Your task to perform on an android device: Open Google Chrome and click the shortcut for Amazon.com Image 0: 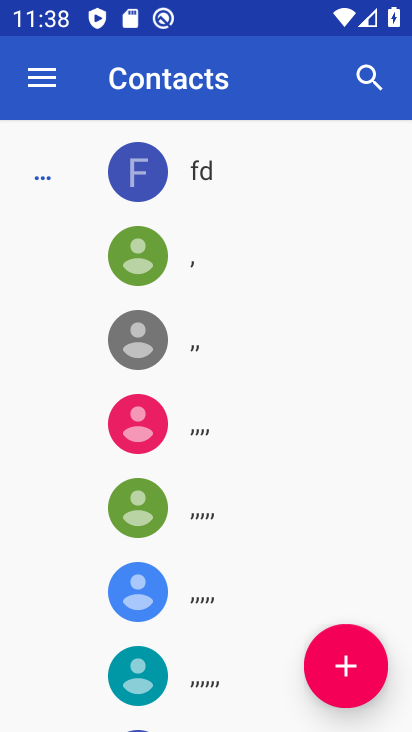
Step 0: press home button
Your task to perform on an android device: Open Google Chrome and click the shortcut for Amazon.com Image 1: 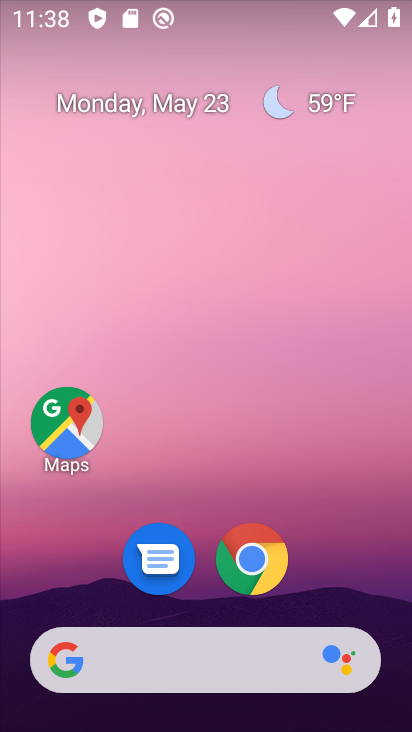
Step 1: drag from (402, 636) to (311, 49)
Your task to perform on an android device: Open Google Chrome and click the shortcut for Amazon.com Image 2: 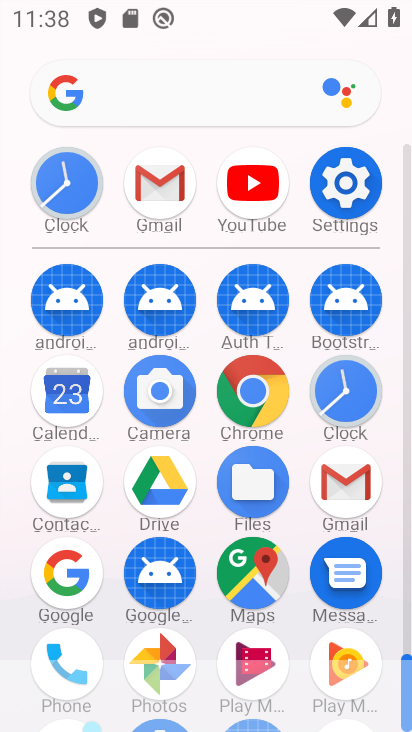
Step 2: click (275, 406)
Your task to perform on an android device: Open Google Chrome and click the shortcut for Amazon.com Image 3: 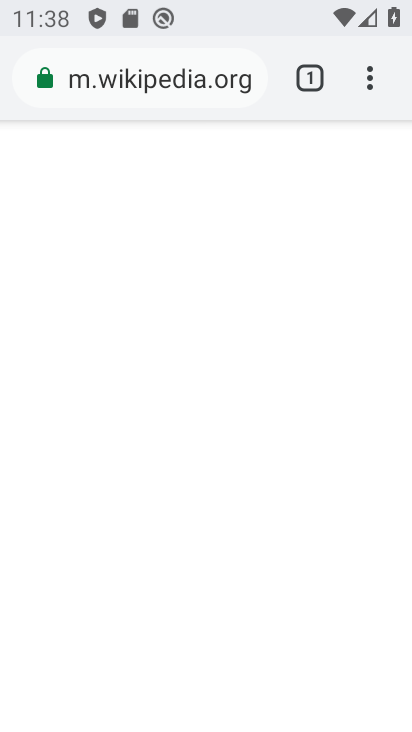
Step 3: press back button
Your task to perform on an android device: Open Google Chrome and click the shortcut for Amazon.com Image 4: 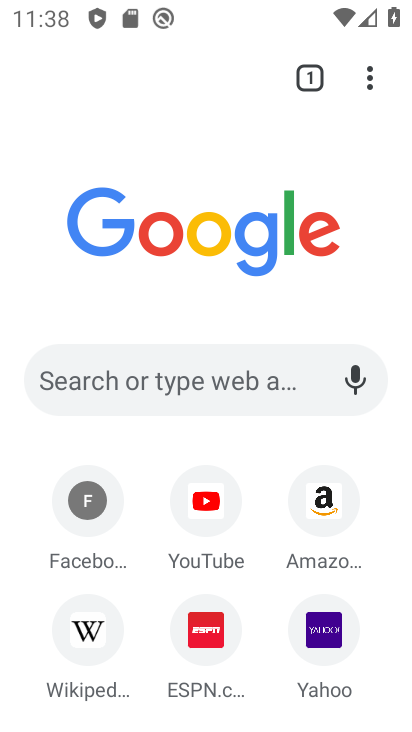
Step 4: click (318, 510)
Your task to perform on an android device: Open Google Chrome and click the shortcut for Amazon.com Image 5: 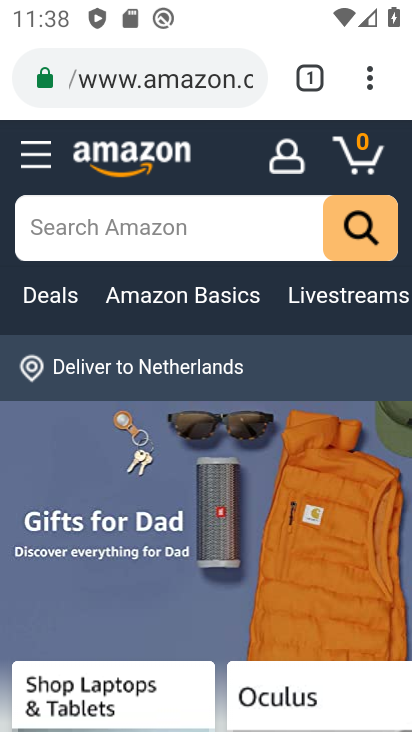
Step 5: task complete